Your task to perform on an android device: delete the emails in spam in the gmail app Image 0: 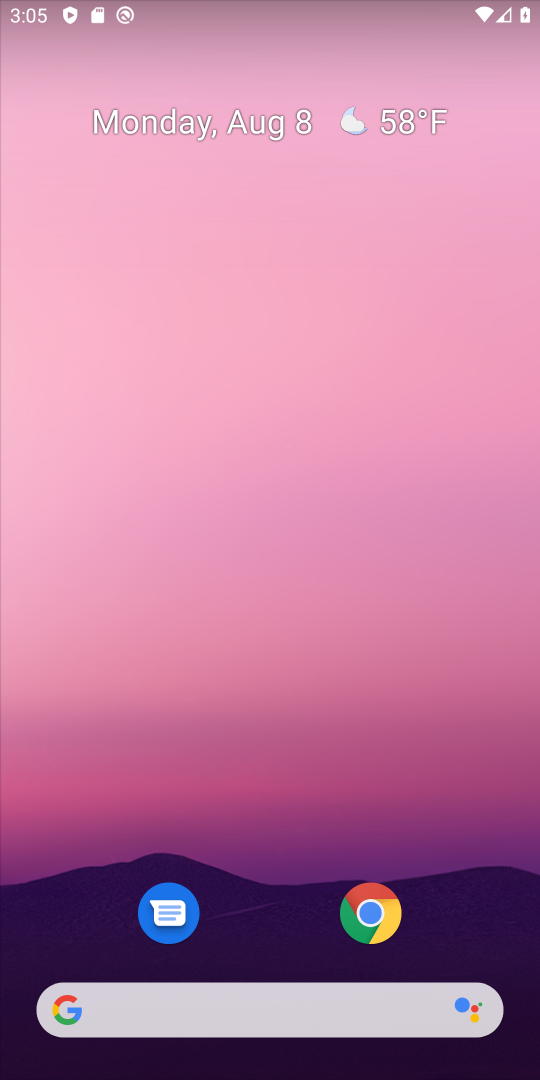
Step 0: press home button
Your task to perform on an android device: delete the emails in spam in the gmail app Image 1: 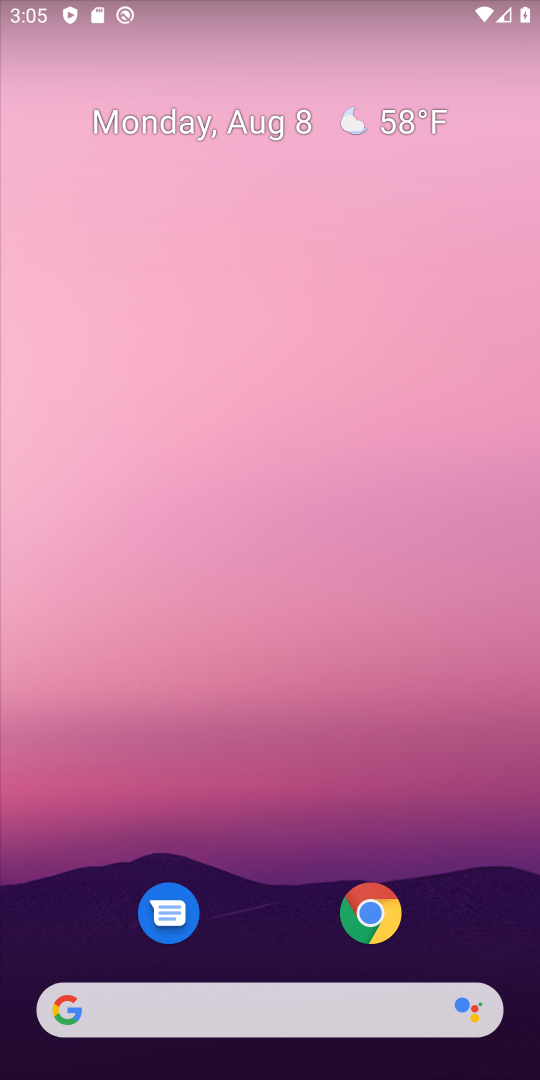
Step 1: drag from (263, 896) to (342, 187)
Your task to perform on an android device: delete the emails in spam in the gmail app Image 2: 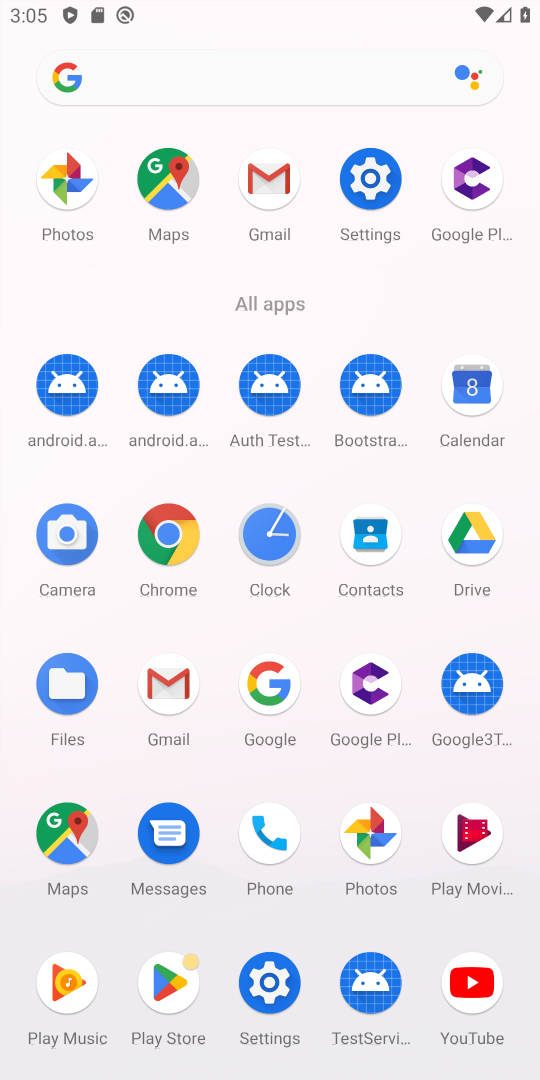
Step 2: click (260, 173)
Your task to perform on an android device: delete the emails in spam in the gmail app Image 3: 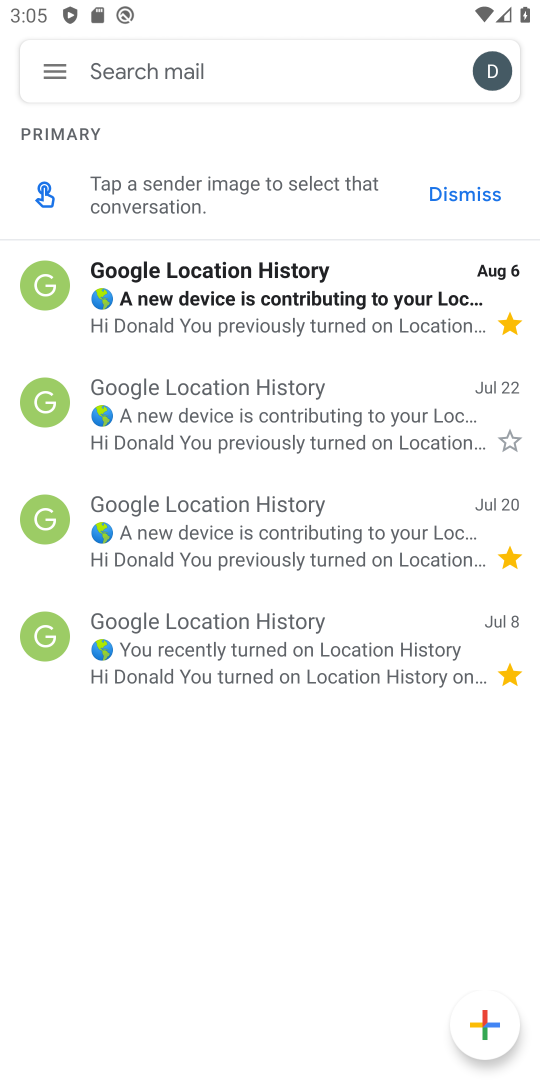
Step 3: click (56, 66)
Your task to perform on an android device: delete the emails in spam in the gmail app Image 4: 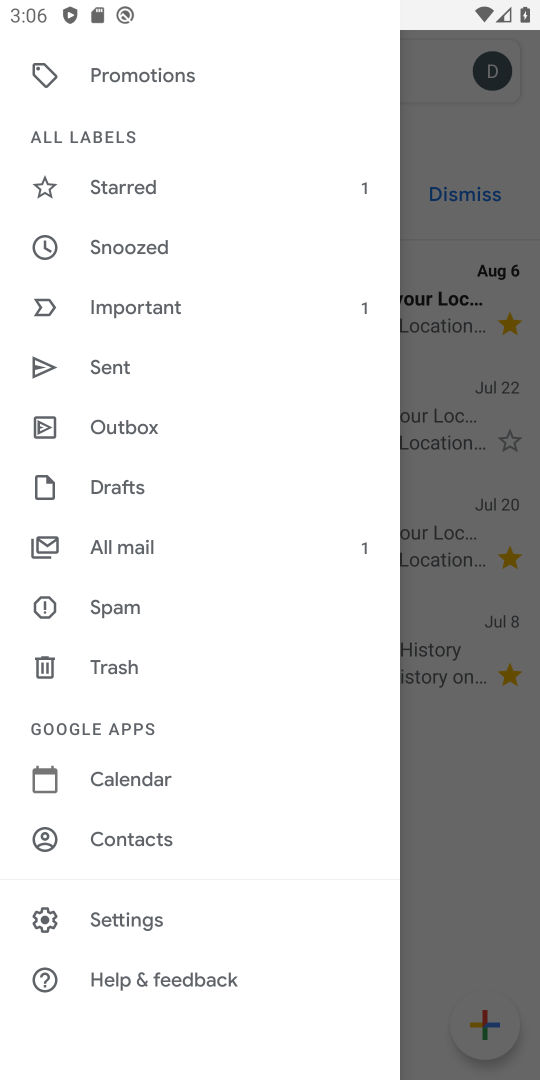
Step 4: click (140, 616)
Your task to perform on an android device: delete the emails in spam in the gmail app Image 5: 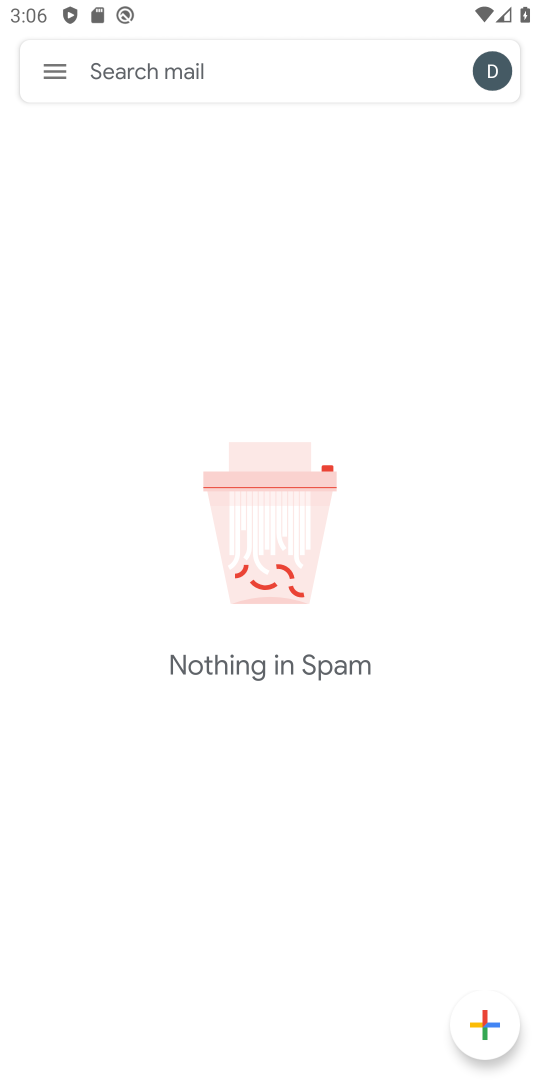
Step 5: task complete